Your task to perform on an android device: all mails in gmail Image 0: 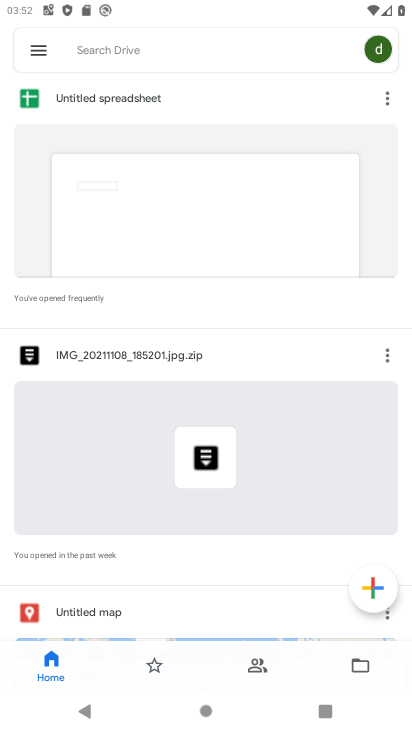
Step 0: press home button
Your task to perform on an android device: all mails in gmail Image 1: 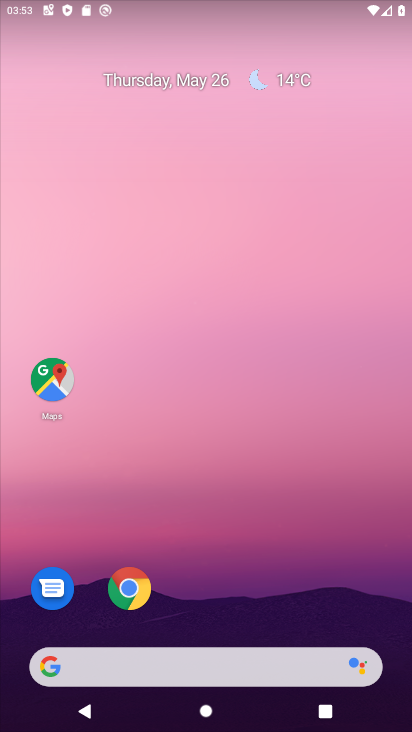
Step 1: drag from (283, 576) to (256, 61)
Your task to perform on an android device: all mails in gmail Image 2: 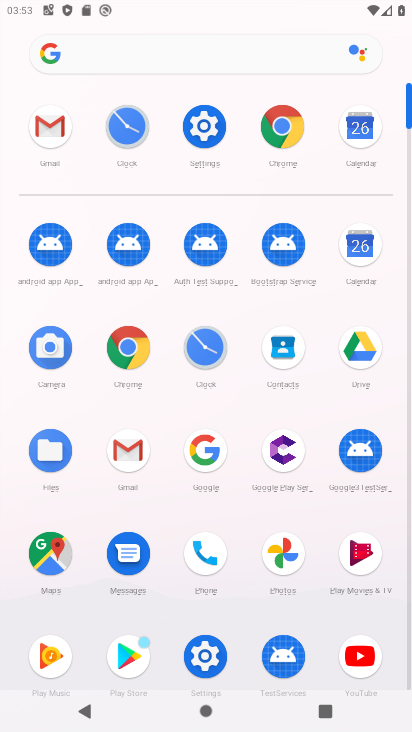
Step 2: click (48, 124)
Your task to perform on an android device: all mails in gmail Image 3: 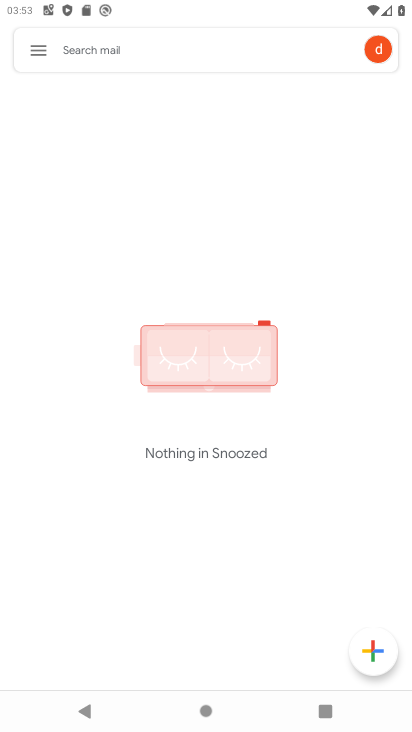
Step 3: click (28, 48)
Your task to perform on an android device: all mails in gmail Image 4: 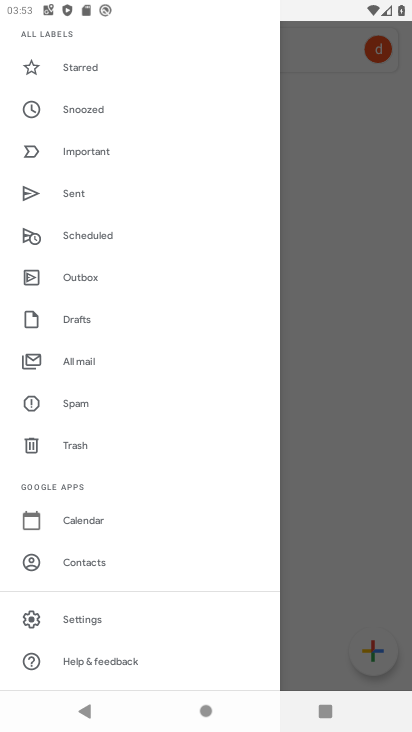
Step 4: drag from (91, 93) to (91, 412)
Your task to perform on an android device: all mails in gmail Image 5: 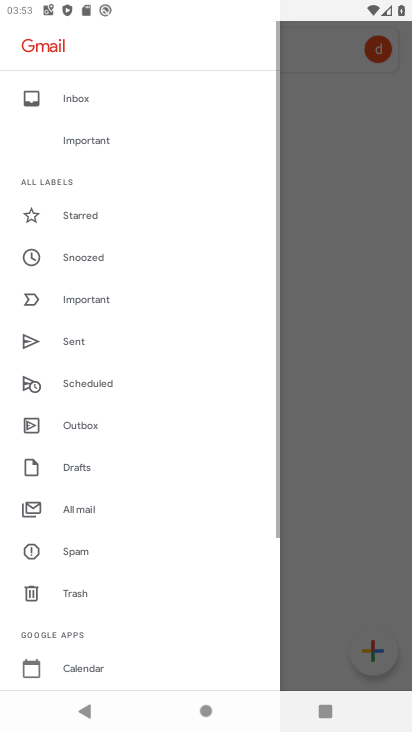
Step 5: click (93, 102)
Your task to perform on an android device: all mails in gmail Image 6: 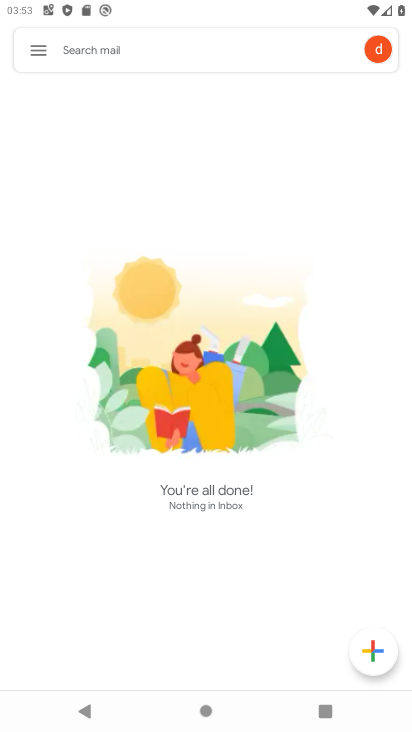
Step 6: task complete